Your task to perform on an android device: open device folders in google photos Image 0: 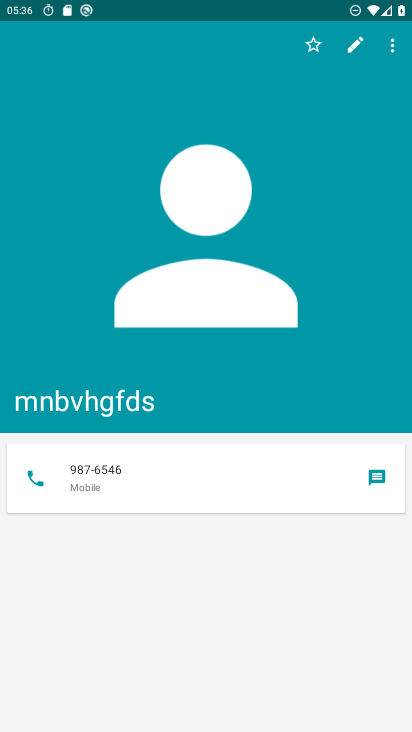
Step 0: press home button
Your task to perform on an android device: open device folders in google photos Image 1: 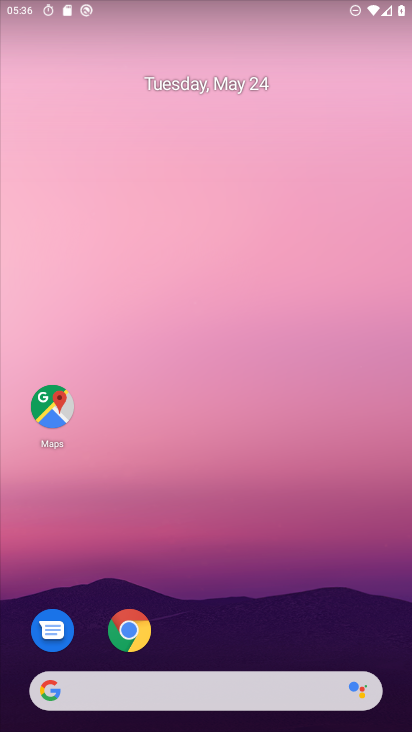
Step 1: drag from (221, 638) to (223, 107)
Your task to perform on an android device: open device folders in google photos Image 2: 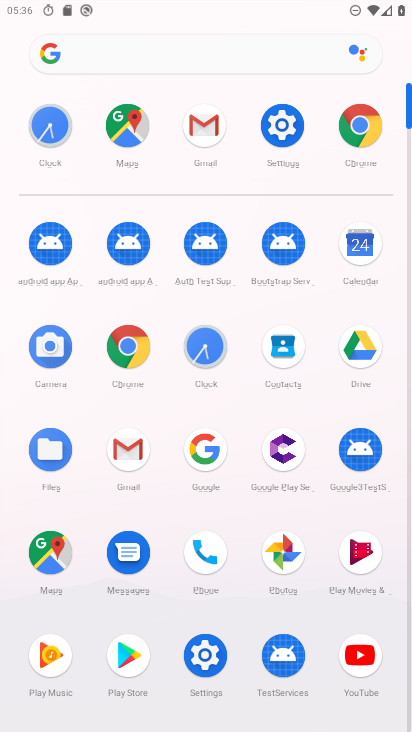
Step 2: click (284, 532)
Your task to perform on an android device: open device folders in google photos Image 3: 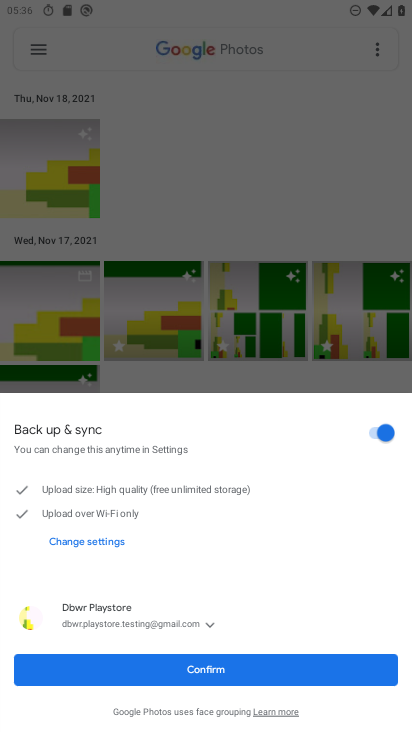
Step 3: click (161, 674)
Your task to perform on an android device: open device folders in google photos Image 4: 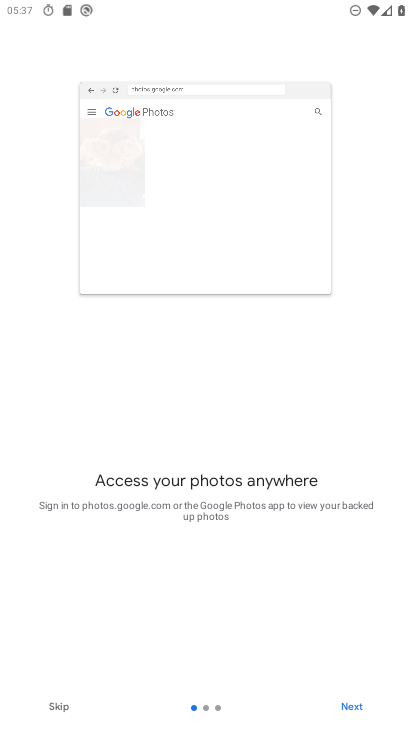
Step 4: click (346, 707)
Your task to perform on an android device: open device folders in google photos Image 5: 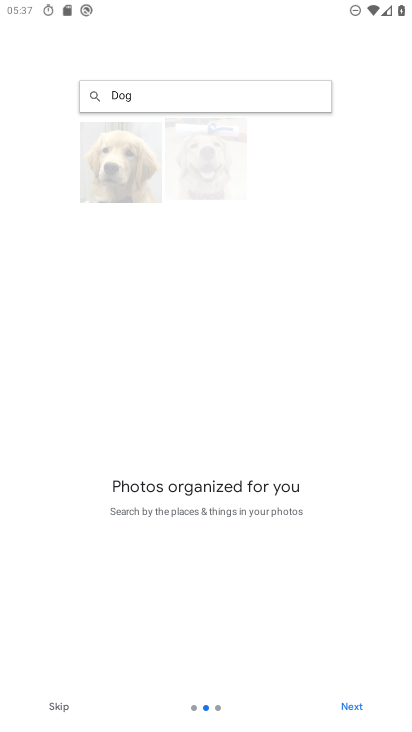
Step 5: click (346, 707)
Your task to perform on an android device: open device folders in google photos Image 6: 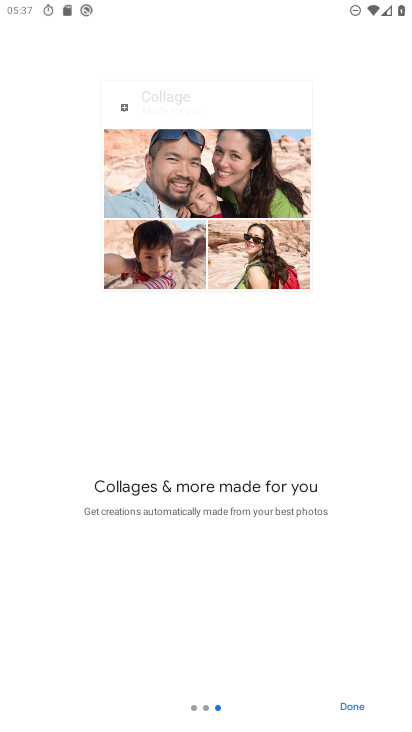
Step 6: click (350, 710)
Your task to perform on an android device: open device folders in google photos Image 7: 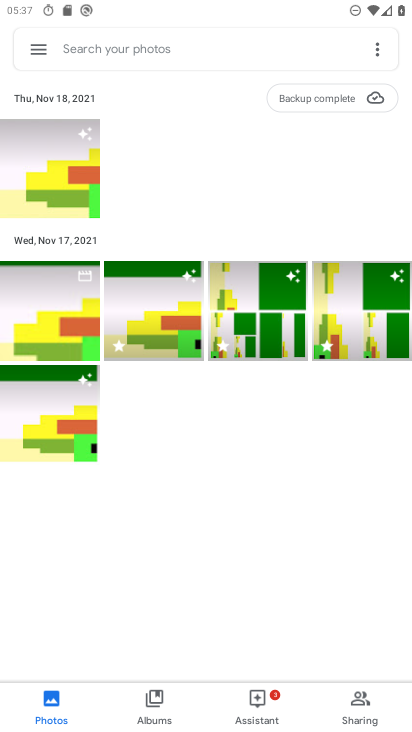
Step 7: click (38, 53)
Your task to perform on an android device: open device folders in google photos Image 8: 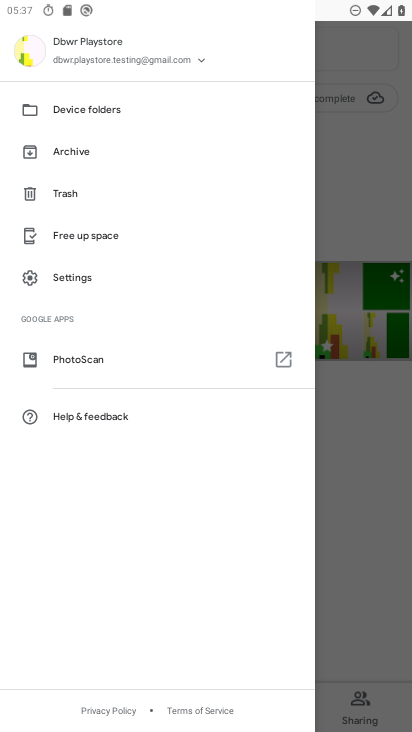
Step 8: click (142, 98)
Your task to perform on an android device: open device folders in google photos Image 9: 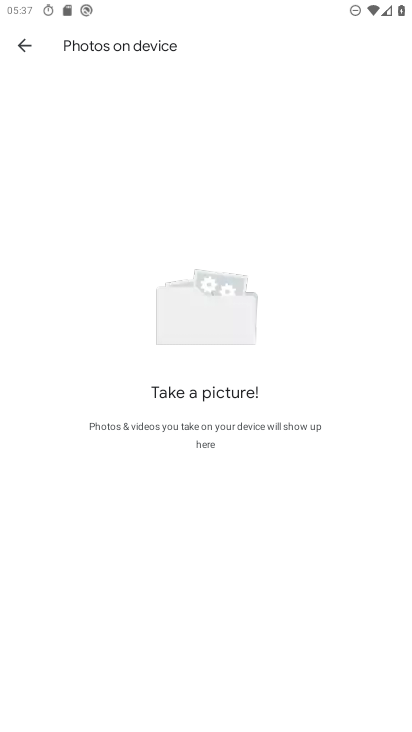
Step 9: task complete